Your task to perform on an android device: Go to CNN.com Image 0: 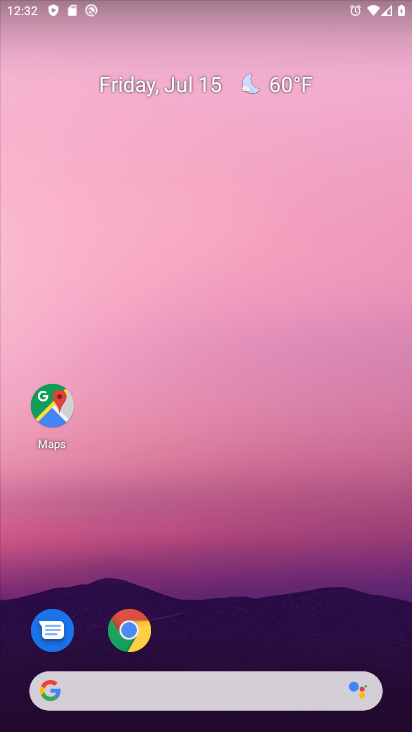
Step 0: click (129, 639)
Your task to perform on an android device: Go to CNN.com Image 1: 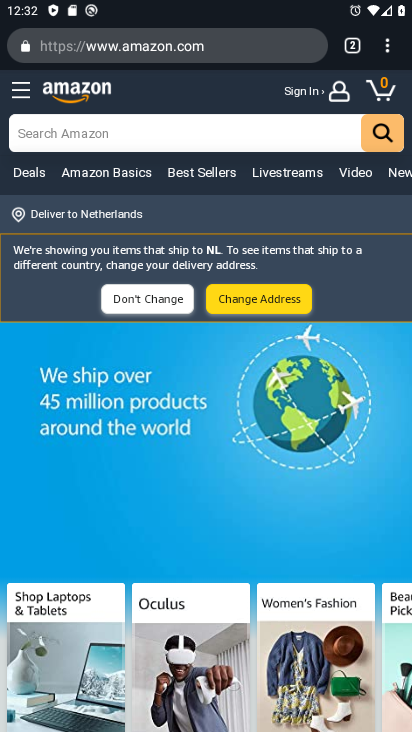
Step 1: press back button
Your task to perform on an android device: Go to CNN.com Image 2: 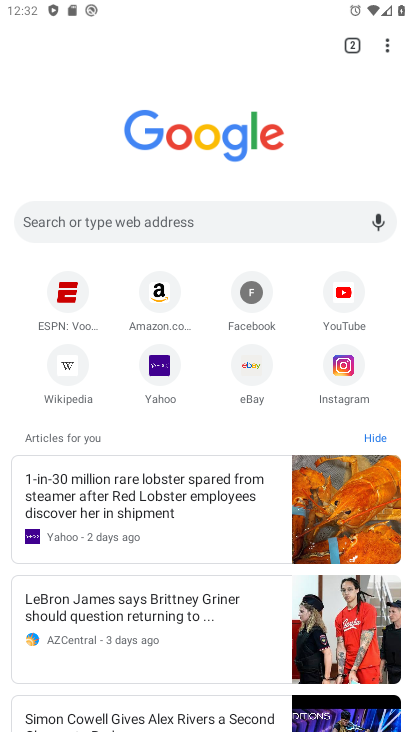
Step 2: click (169, 219)
Your task to perform on an android device: Go to CNN.com Image 3: 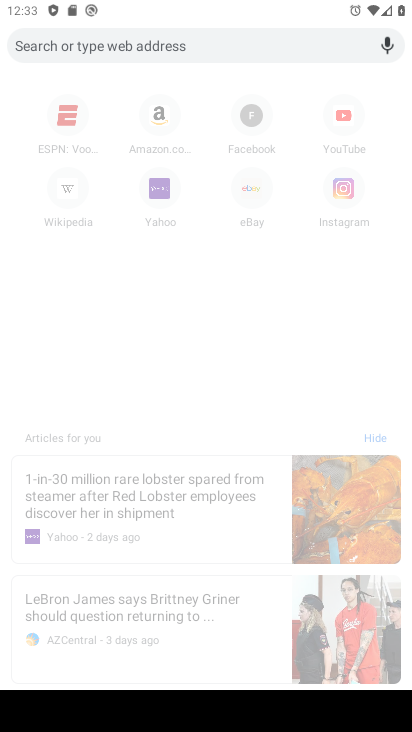
Step 3: type "www.cnn.com"
Your task to perform on an android device: Go to CNN.com Image 4: 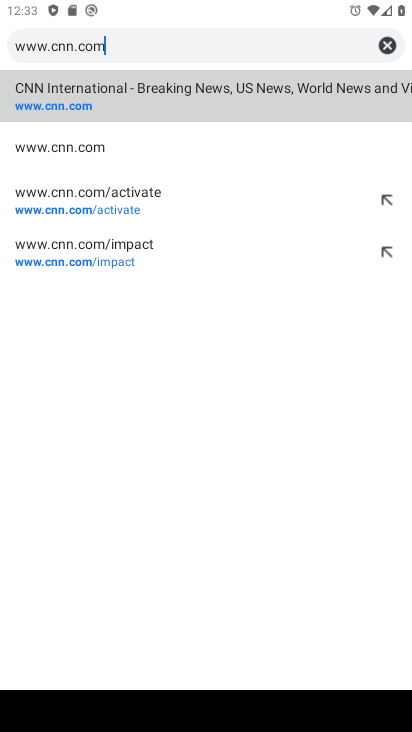
Step 4: click (36, 97)
Your task to perform on an android device: Go to CNN.com Image 5: 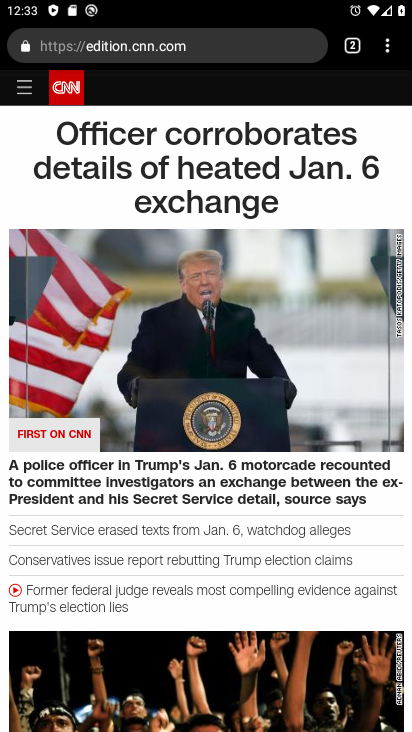
Step 5: task complete